Your task to perform on an android device: Search for pizza restaurants on Maps Image 0: 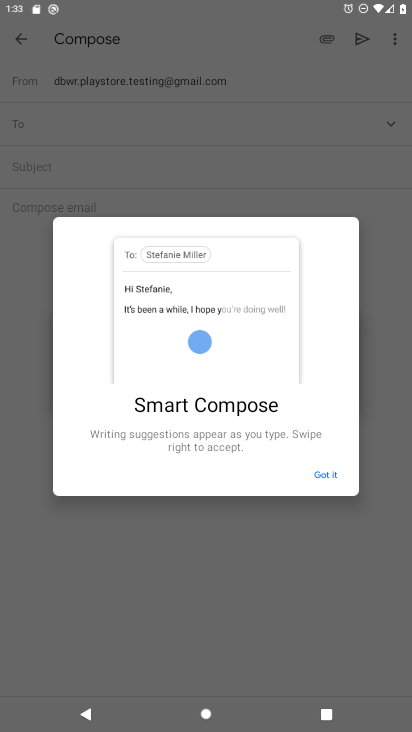
Step 0: press home button
Your task to perform on an android device: Search for pizza restaurants on Maps Image 1: 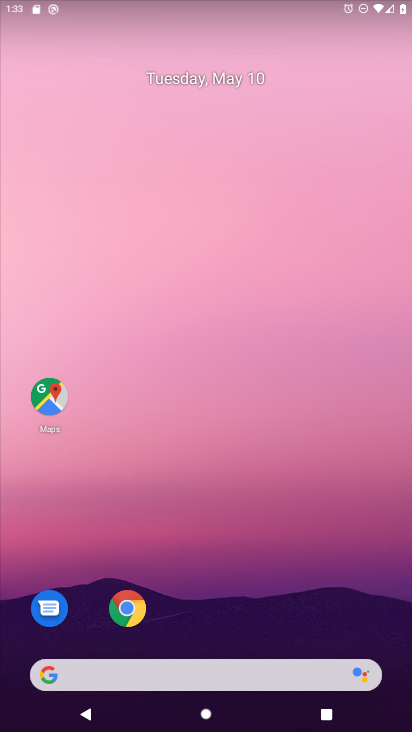
Step 1: drag from (362, 561) to (337, 186)
Your task to perform on an android device: Search for pizza restaurants on Maps Image 2: 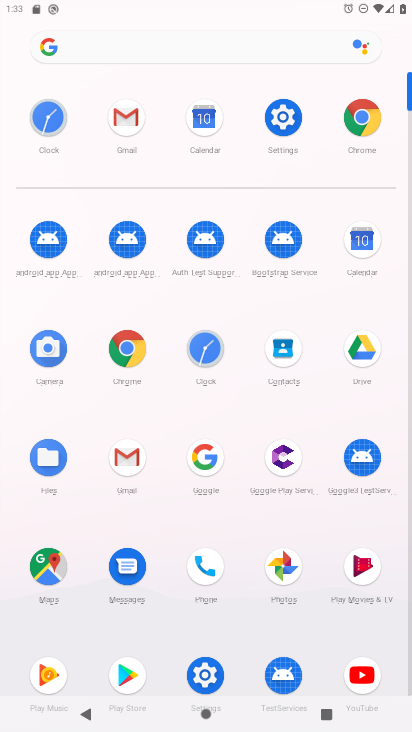
Step 2: click (39, 572)
Your task to perform on an android device: Search for pizza restaurants on Maps Image 3: 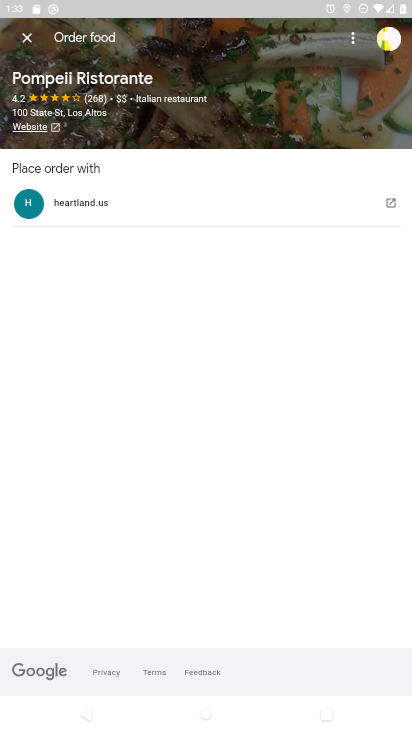
Step 3: click (30, 46)
Your task to perform on an android device: Search for pizza restaurants on Maps Image 4: 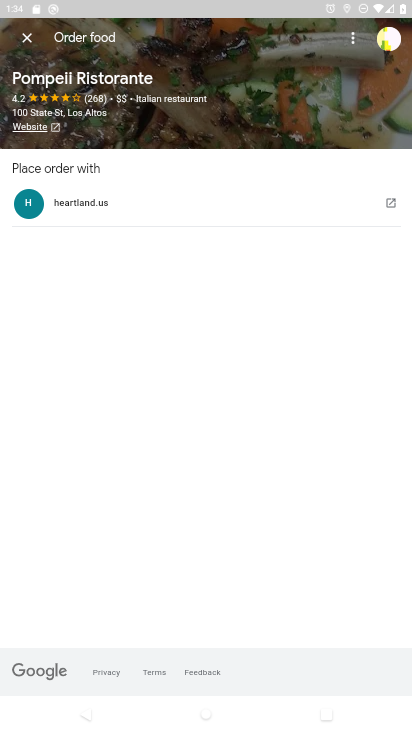
Step 4: click (29, 44)
Your task to perform on an android device: Search for pizza restaurants on Maps Image 5: 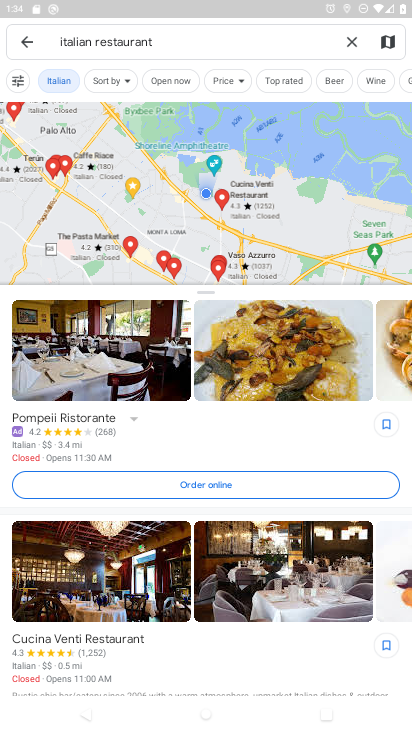
Step 5: click (354, 39)
Your task to perform on an android device: Search for pizza restaurants on Maps Image 6: 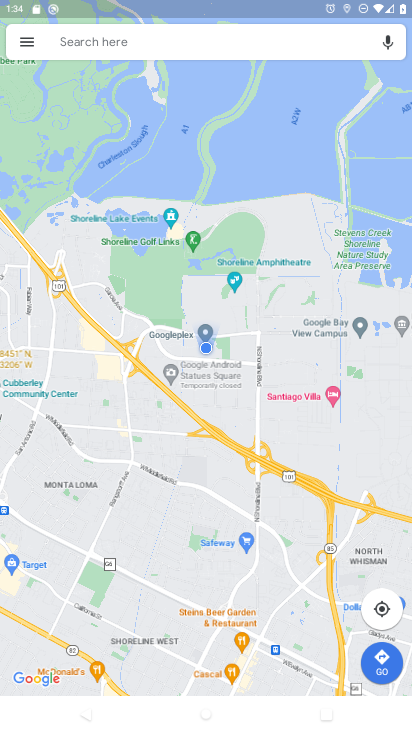
Step 6: click (187, 40)
Your task to perform on an android device: Search for pizza restaurants on Maps Image 7: 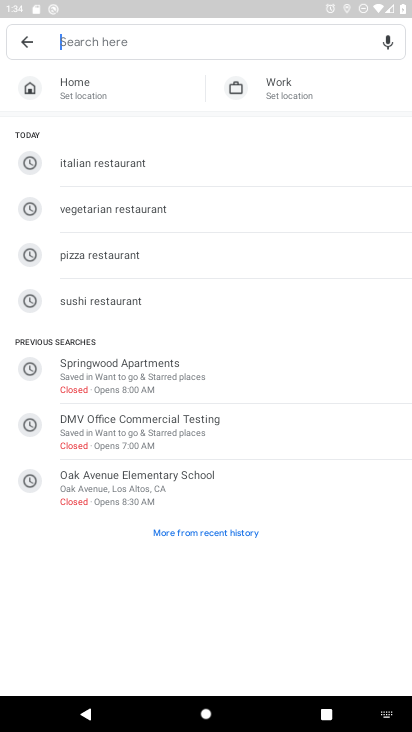
Step 7: click (111, 250)
Your task to perform on an android device: Search for pizza restaurants on Maps Image 8: 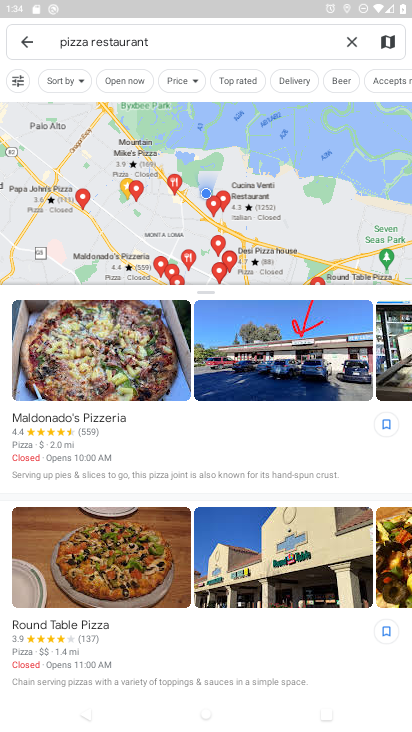
Step 8: task complete